Your task to perform on an android device: open chrome privacy settings Image 0: 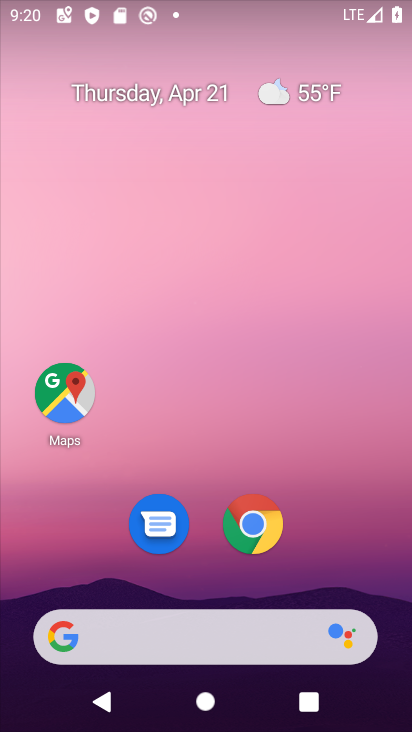
Step 0: click (261, 516)
Your task to perform on an android device: open chrome privacy settings Image 1: 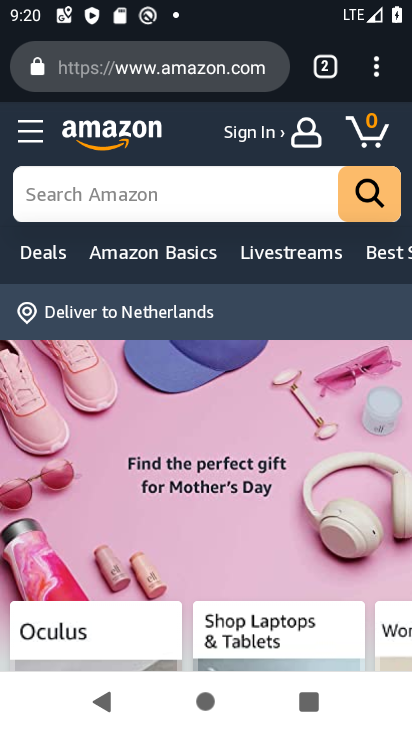
Step 1: click (378, 71)
Your task to perform on an android device: open chrome privacy settings Image 2: 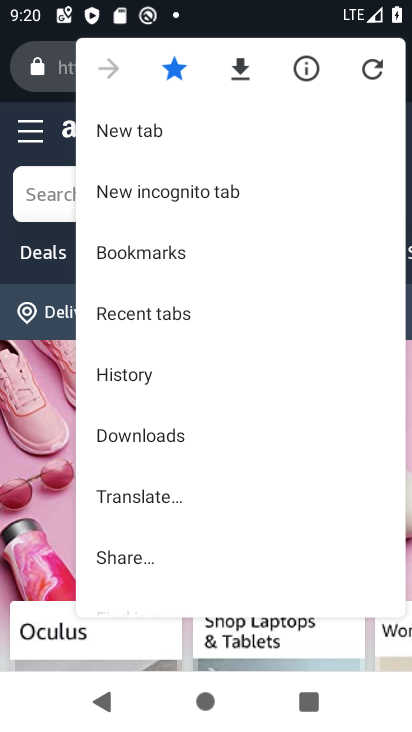
Step 2: drag from (259, 533) to (250, 157)
Your task to perform on an android device: open chrome privacy settings Image 3: 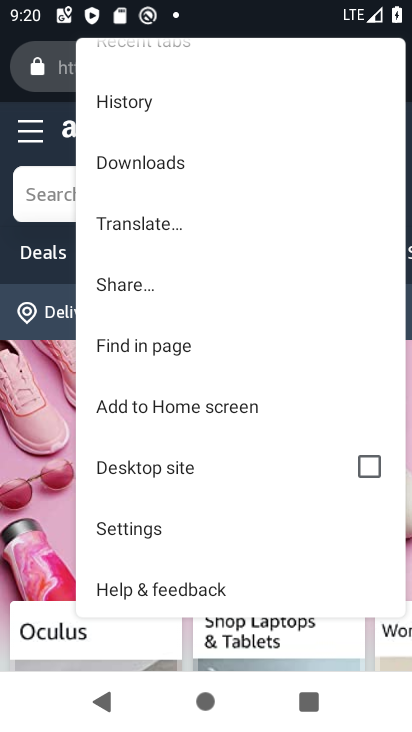
Step 3: click (182, 528)
Your task to perform on an android device: open chrome privacy settings Image 4: 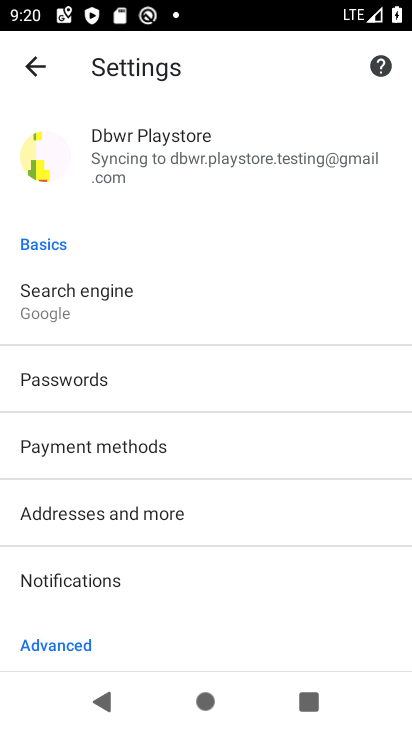
Step 4: drag from (249, 482) to (247, 211)
Your task to perform on an android device: open chrome privacy settings Image 5: 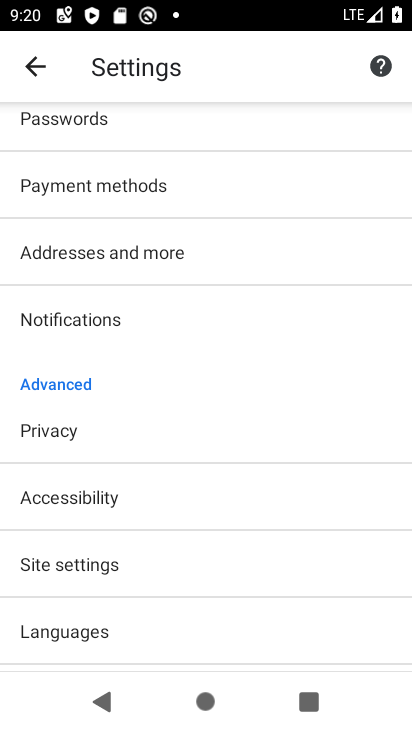
Step 5: click (195, 441)
Your task to perform on an android device: open chrome privacy settings Image 6: 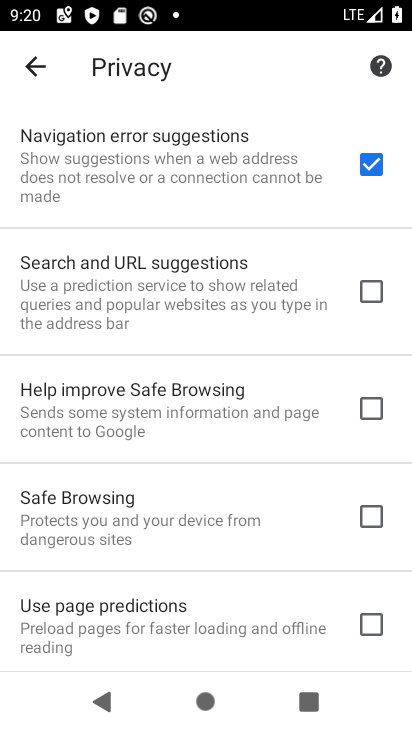
Step 6: task complete